Your task to perform on an android device: Is it going to rain today? Image 0: 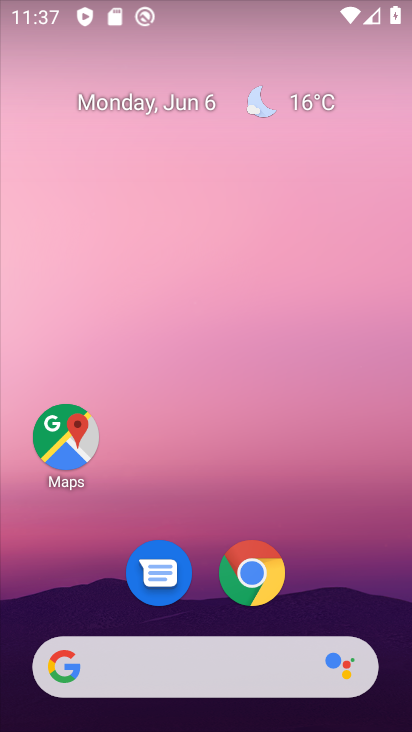
Step 0: press home button
Your task to perform on an android device: Is it going to rain today? Image 1: 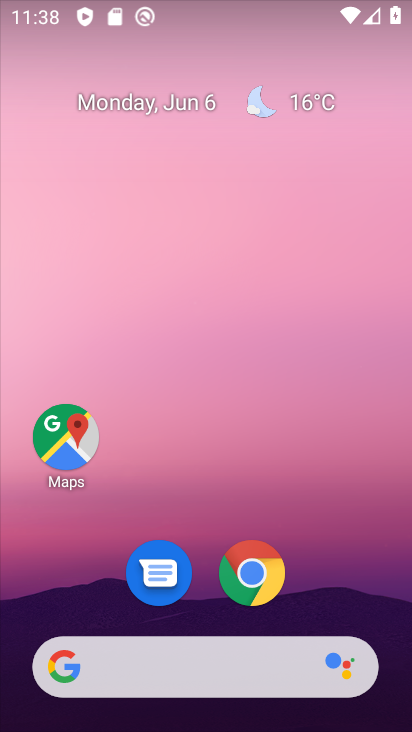
Step 1: click (238, 552)
Your task to perform on an android device: Is it going to rain today? Image 2: 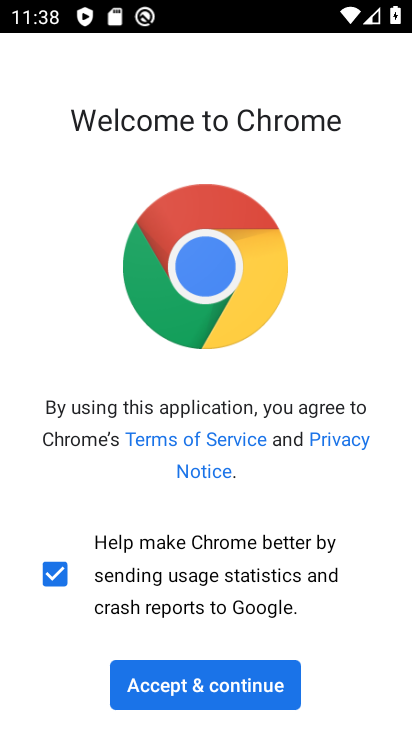
Step 2: click (116, 702)
Your task to perform on an android device: Is it going to rain today? Image 3: 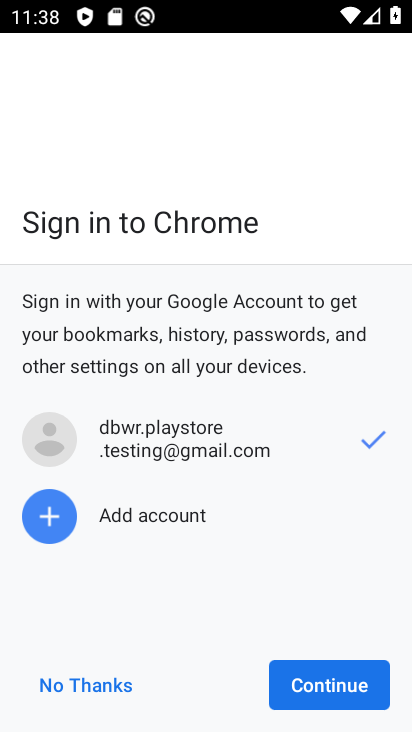
Step 3: click (348, 697)
Your task to perform on an android device: Is it going to rain today? Image 4: 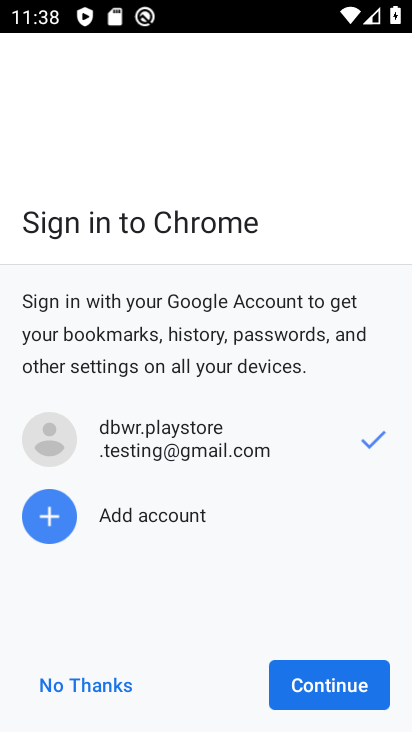
Step 4: click (348, 697)
Your task to perform on an android device: Is it going to rain today? Image 5: 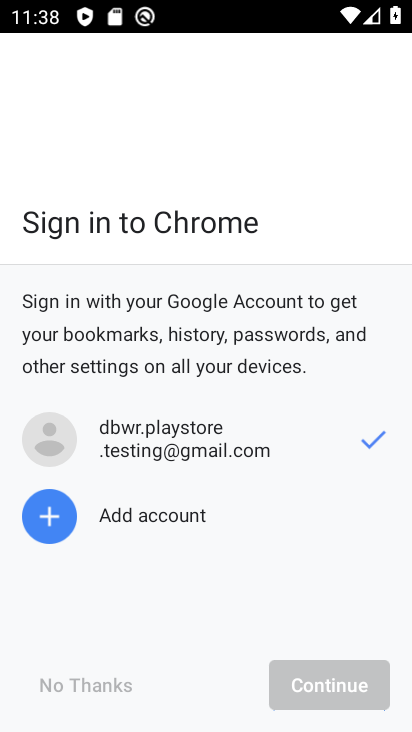
Step 5: click (348, 697)
Your task to perform on an android device: Is it going to rain today? Image 6: 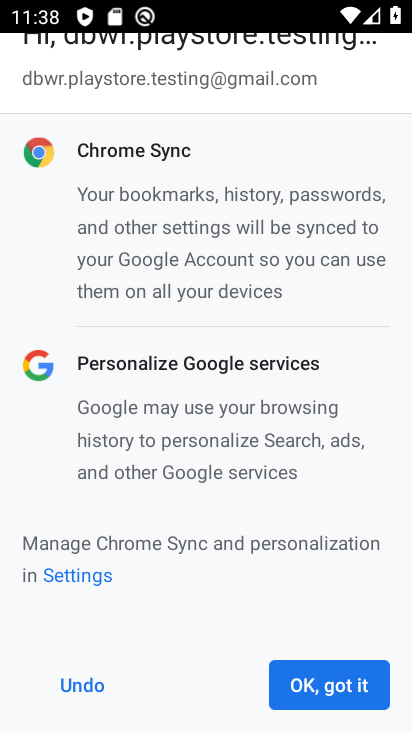
Step 6: click (348, 697)
Your task to perform on an android device: Is it going to rain today? Image 7: 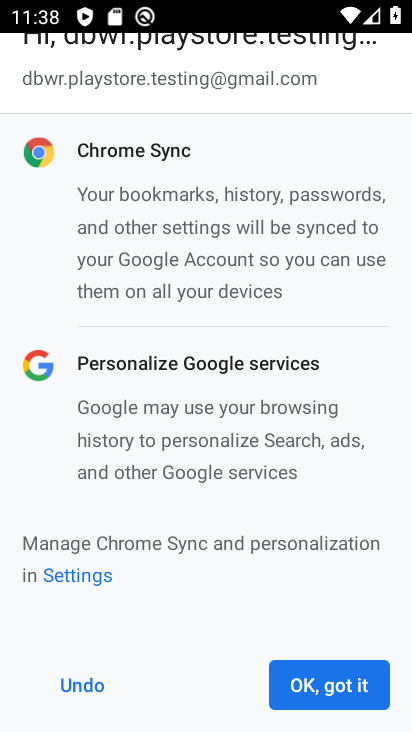
Step 7: click (348, 697)
Your task to perform on an android device: Is it going to rain today? Image 8: 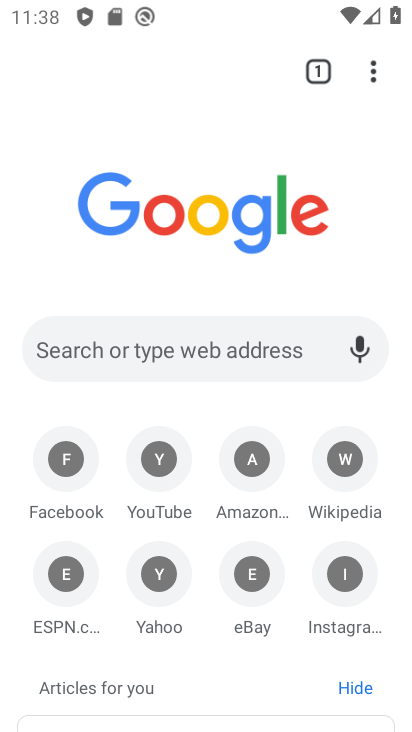
Step 8: click (151, 368)
Your task to perform on an android device: Is it going to rain today? Image 9: 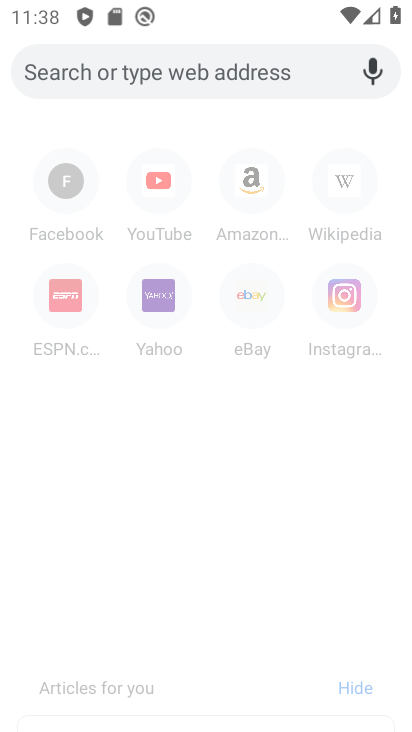
Step 9: click (135, 355)
Your task to perform on an android device: Is it going to rain today? Image 10: 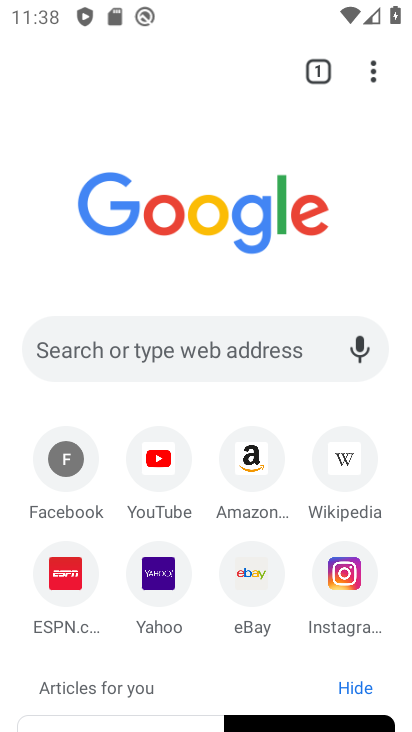
Step 10: click (262, 358)
Your task to perform on an android device: Is it going to rain today? Image 11: 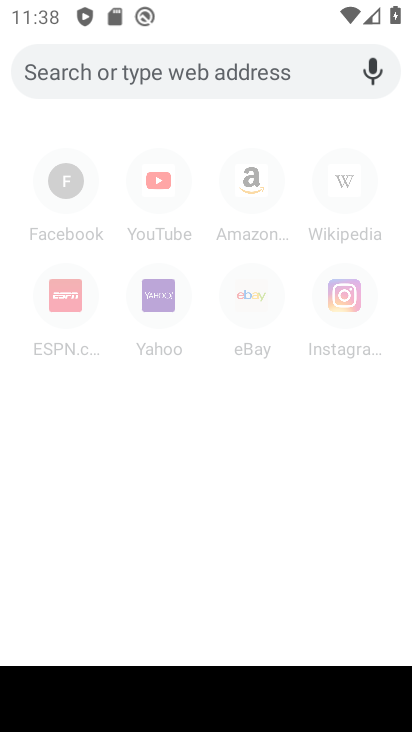
Step 11: type "Is it going to rain today?"
Your task to perform on an android device: Is it going to rain today? Image 12: 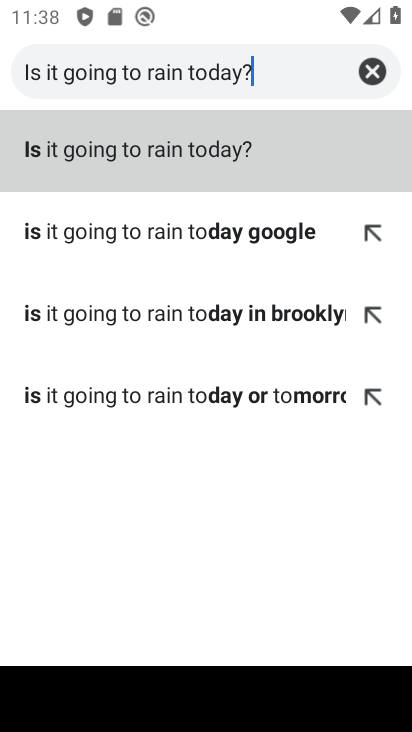
Step 12: click (121, 133)
Your task to perform on an android device: Is it going to rain today? Image 13: 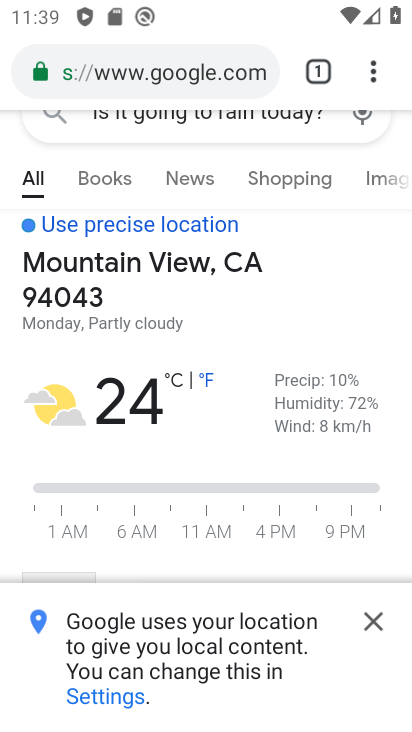
Step 13: task complete